Your task to perform on an android device: toggle wifi Image 0: 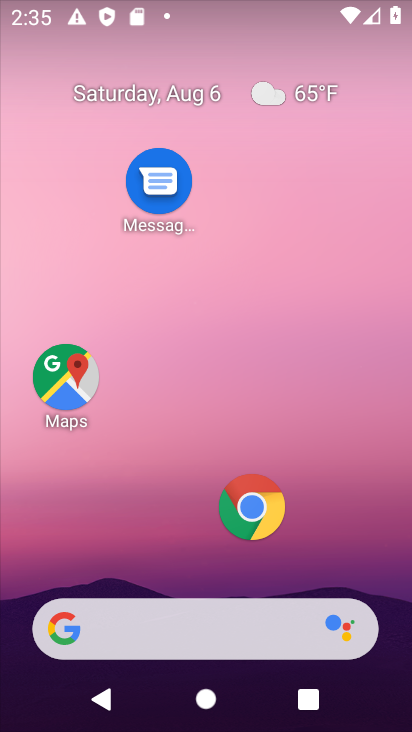
Step 0: drag from (189, 502) to (218, 23)
Your task to perform on an android device: toggle wifi Image 1: 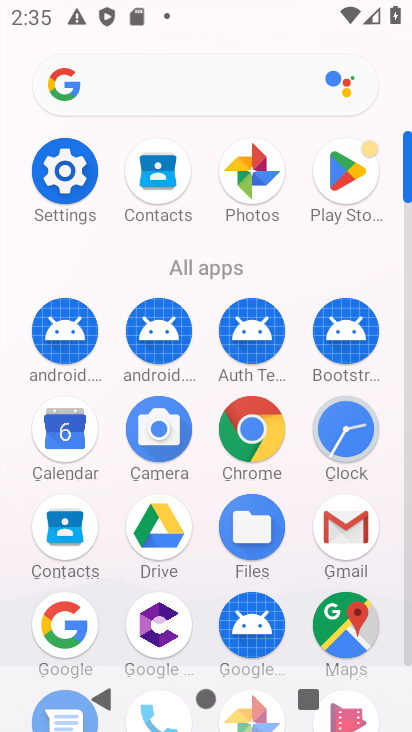
Step 1: click (67, 193)
Your task to perform on an android device: toggle wifi Image 2: 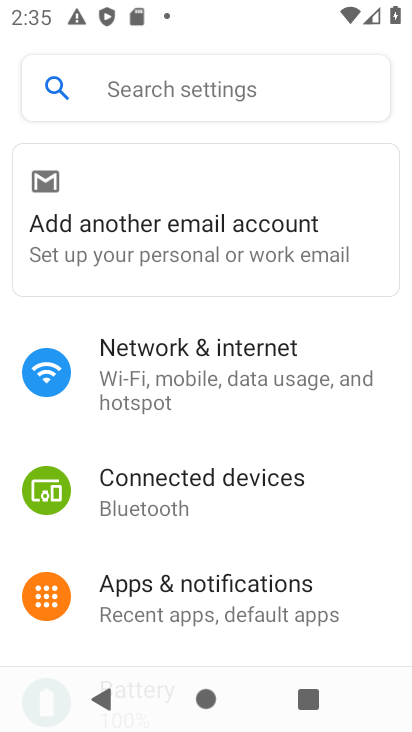
Step 2: click (164, 374)
Your task to perform on an android device: toggle wifi Image 3: 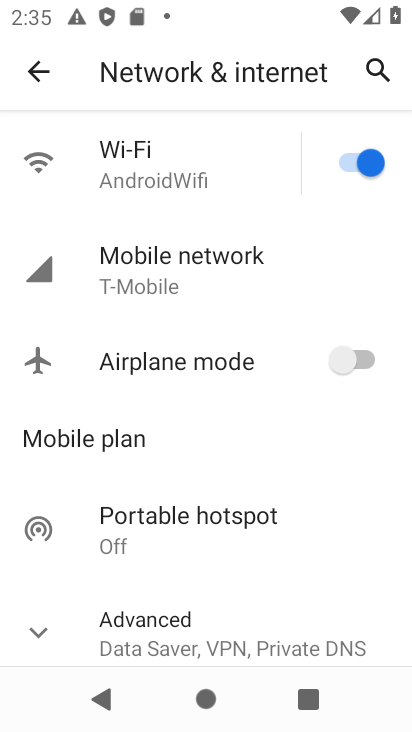
Step 3: click (330, 165)
Your task to perform on an android device: toggle wifi Image 4: 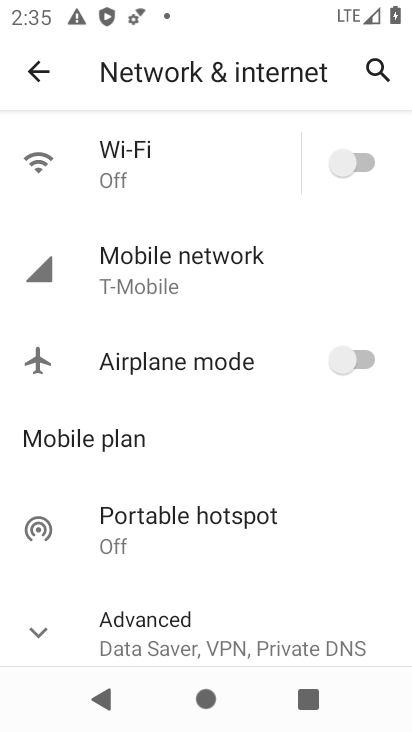
Step 4: task complete